Your task to perform on an android device: find photos in the google photos app Image 0: 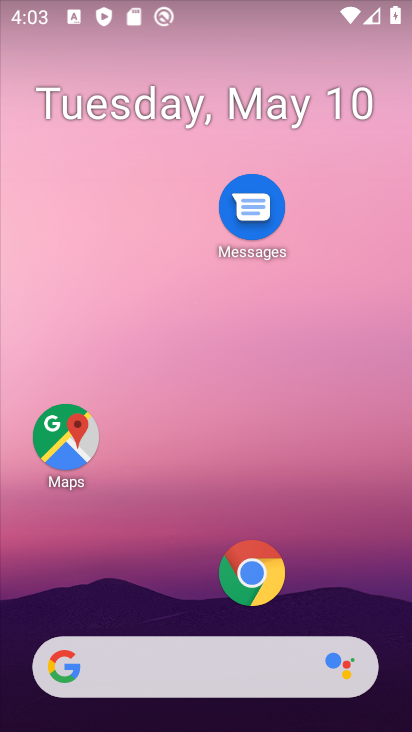
Step 0: drag from (188, 605) to (141, 200)
Your task to perform on an android device: find photos in the google photos app Image 1: 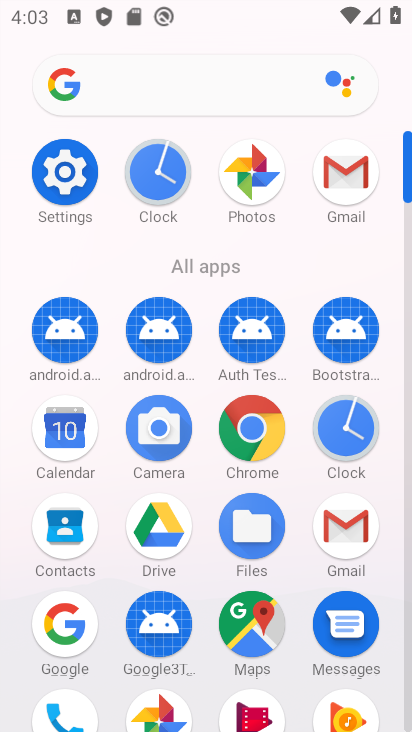
Step 1: drag from (201, 567) to (203, 308)
Your task to perform on an android device: find photos in the google photos app Image 2: 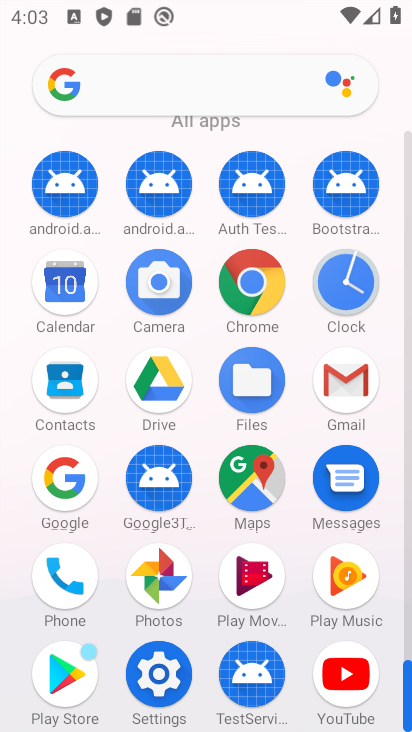
Step 2: click (161, 557)
Your task to perform on an android device: find photos in the google photos app Image 3: 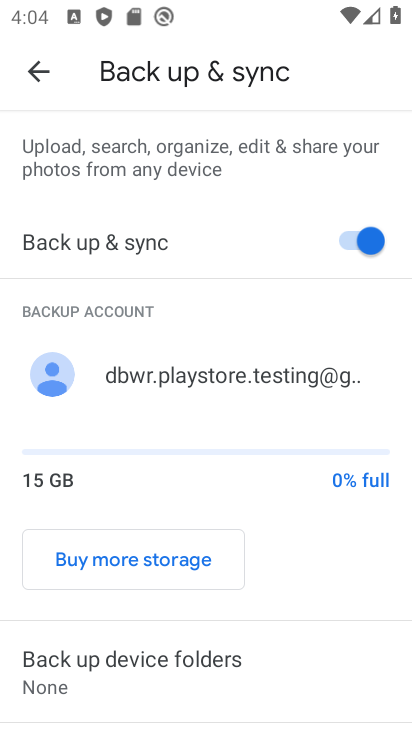
Step 3: click (32, 79)
Your task to perform on an android device: find photos in the google photos app Image 4: 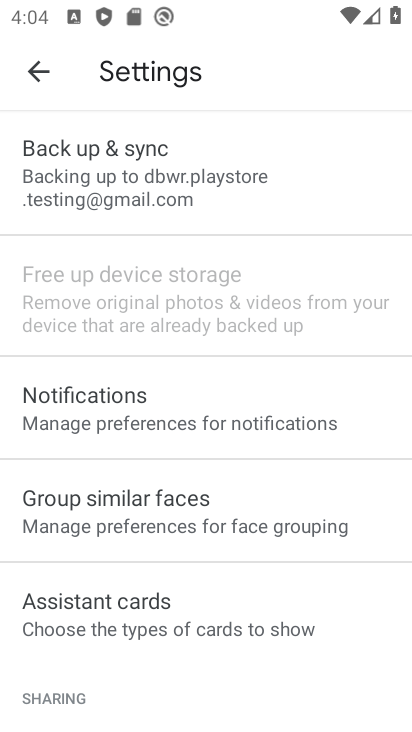
Step 4: click (28, 72)
Your task to perform on an android device: find photos in the google photos app Image 5: 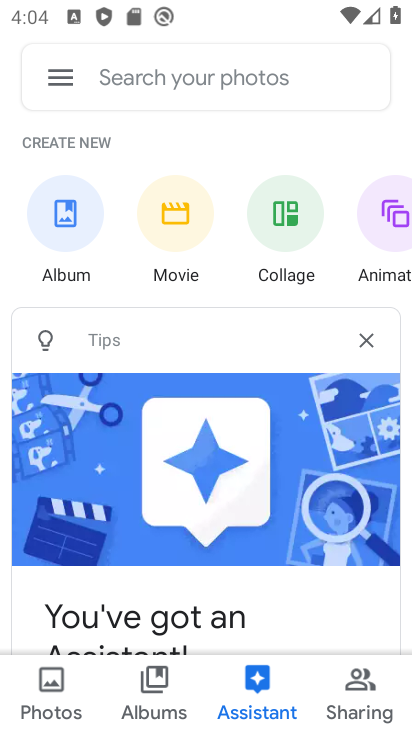
Step 5: click (166, 85)
Your task to perform on an android device: find photos in the google photos app Image 6: 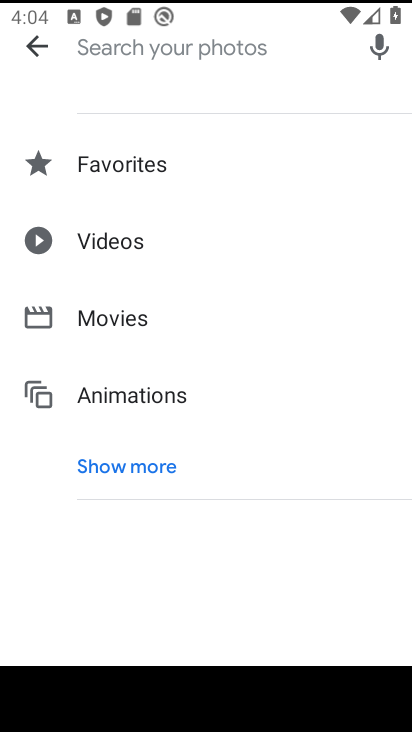
Step 6: type "aaa"
Your task to perform on an android device: find photos in the google photos app Image 7: 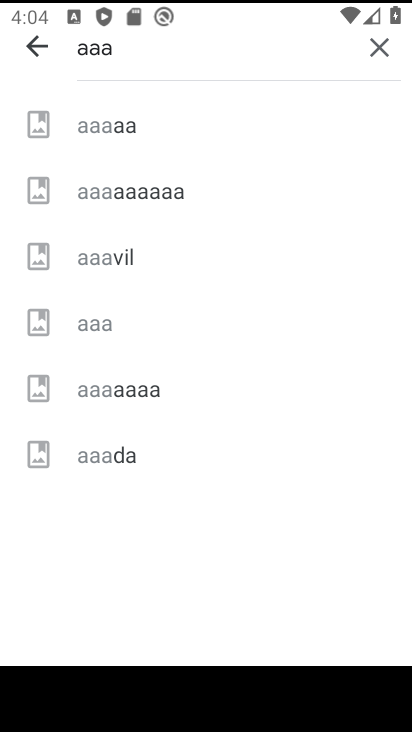
Step 7: click (69, 324)
Your task to perform on an android device: find photos in the google photos app Image 8: 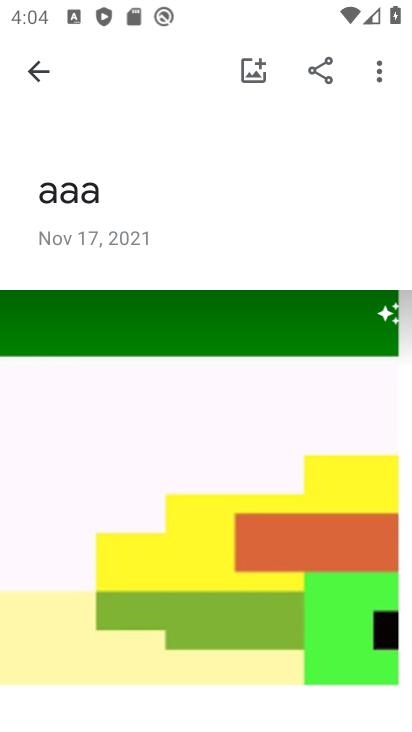
Step 8: task complete